Your task to perform on an android device: choose inbox layout in the gmail app Image 0: 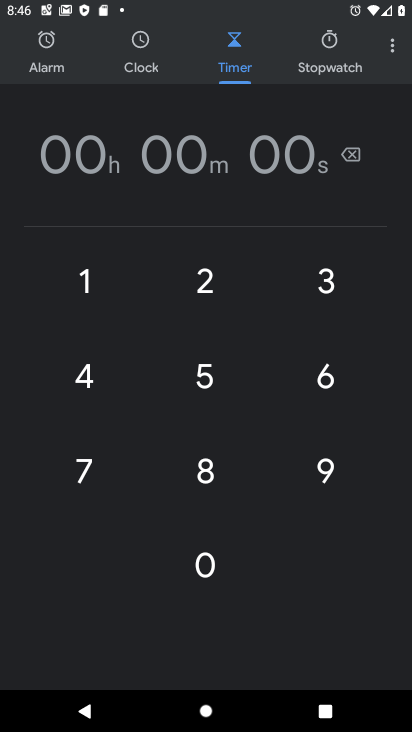
Step 0: press home button
Your task to perform on an android device: choose inbox layout in the gmail app Image 1: 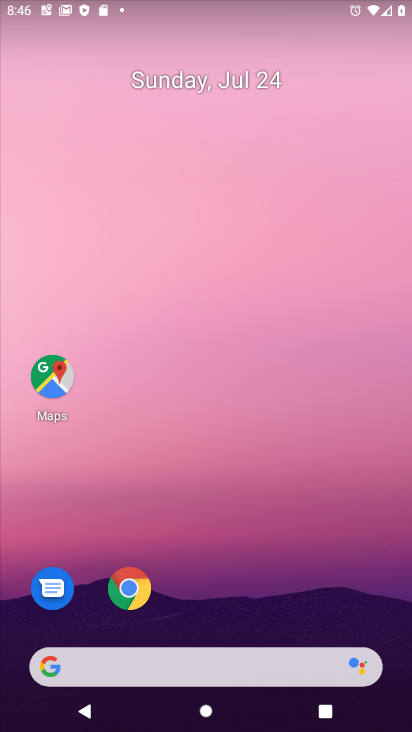
Step 1: drag from (226, 624) to (291, 3)
Your task to perform on an android device: choose inbox layout in the gmail app Image 2: 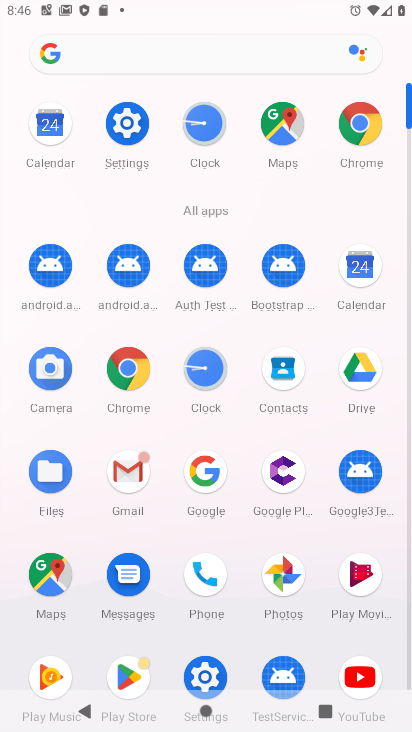
Step 2: click (127, 468)
Your task to perform on an android device: choose inbox layout in the gmail app Image 3: 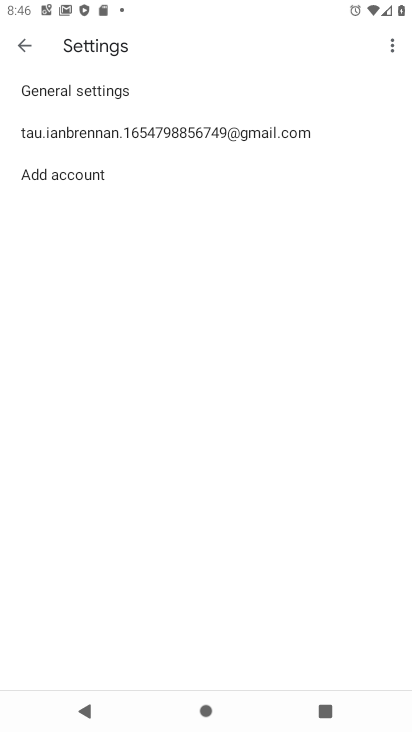
Step 3: click (88, 131)
Your task to perform on an android device: choose inbox layout in the gmail app Image 4: 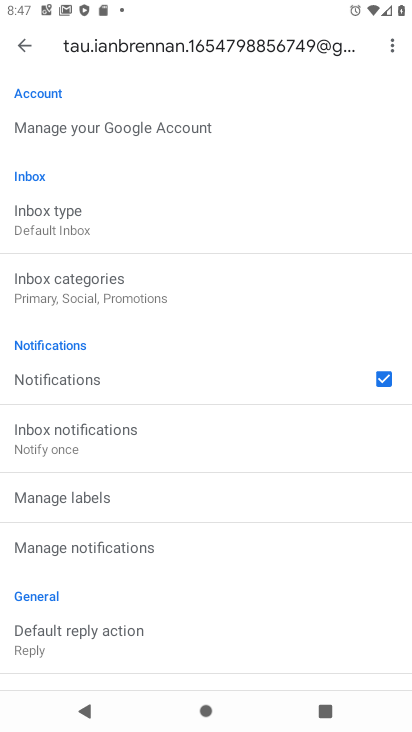
Step 4: click (80, 220)
Your task to perform on an android device: choose inbox layout in the gmail app Image 5: 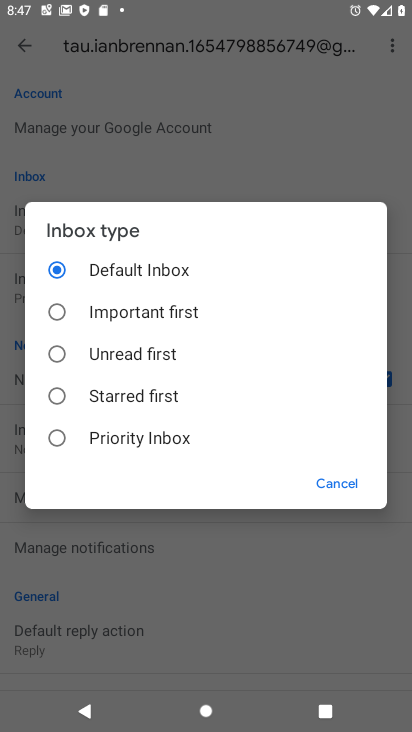
Step 5: click (63, 348)
Your task to perform on an android device: choose inbox layout in the gmail app Image 6: 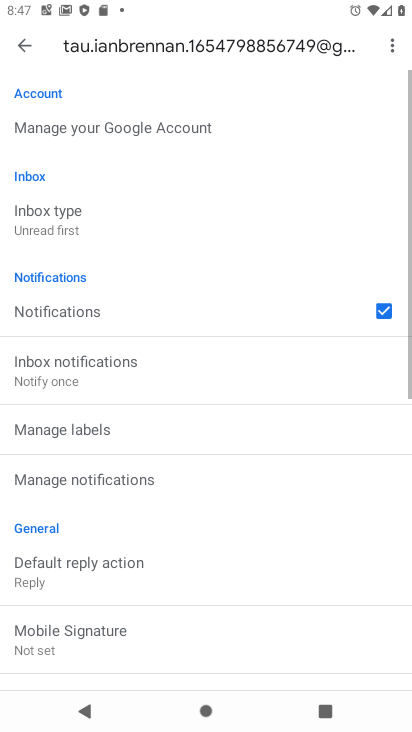
Step 6: task complete